Your task to perform on an android device: Open the phone app and click the voicemail tab. Image 0: 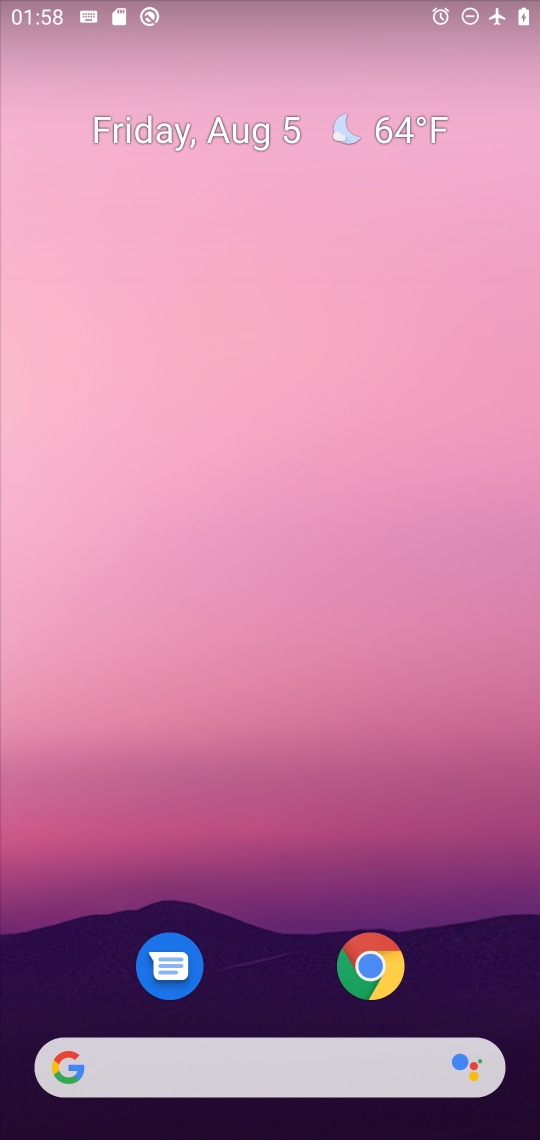
Step 0: drag from (310, 896) to (333, 4)
Your task to perform on an android device: Open the phone app and click the voicemail tab. Image 1: 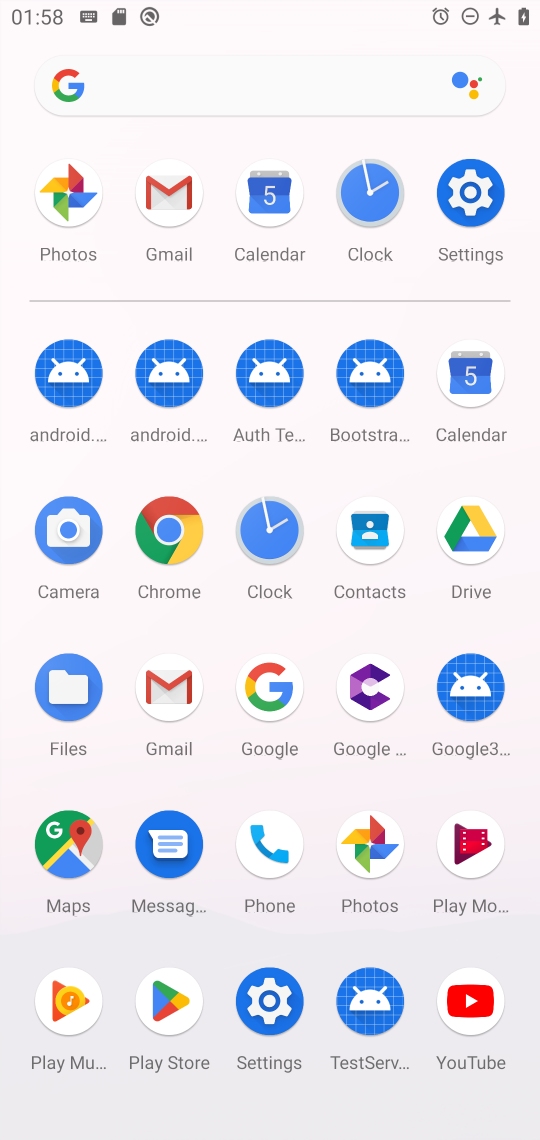
Step 1: click (273, 833)
Your task to perform on an android device: Open the phone app and click the voicemail tab. Image 2: 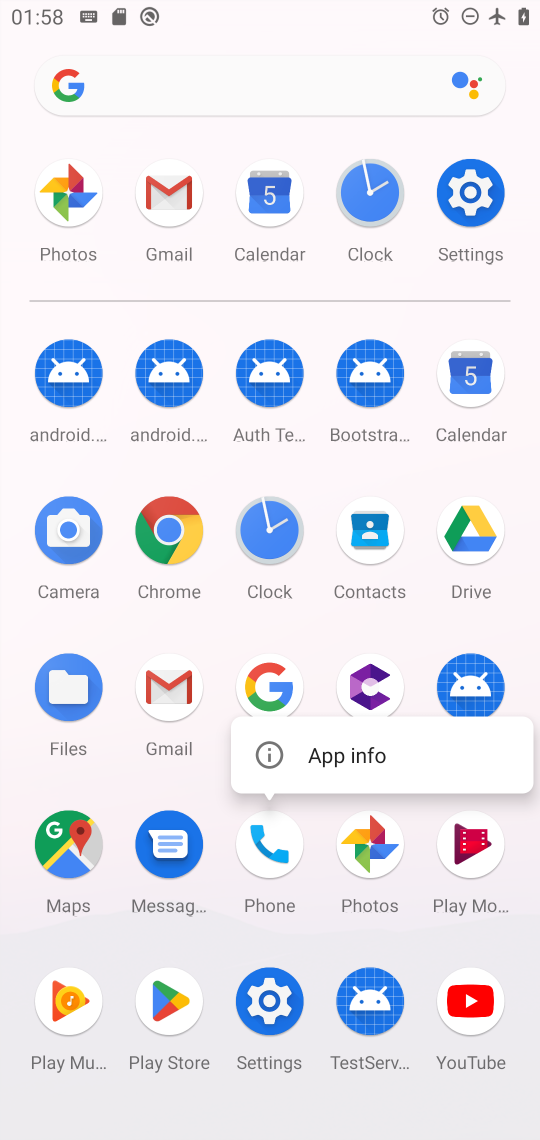
Step 2: click (269, 838)
Your task to perform on an android device: Open the phone app and click the voicemail tab. Image 3: 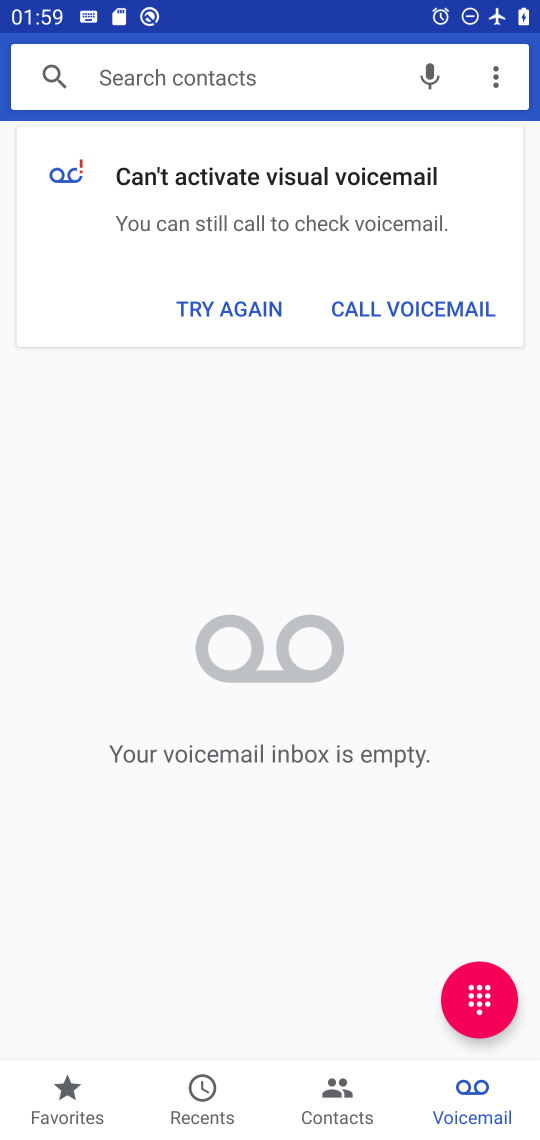
Step 3: click (468, 1098)
Your task to perform on an android device: Open the phone app and click the voicemail tab. Image 4: 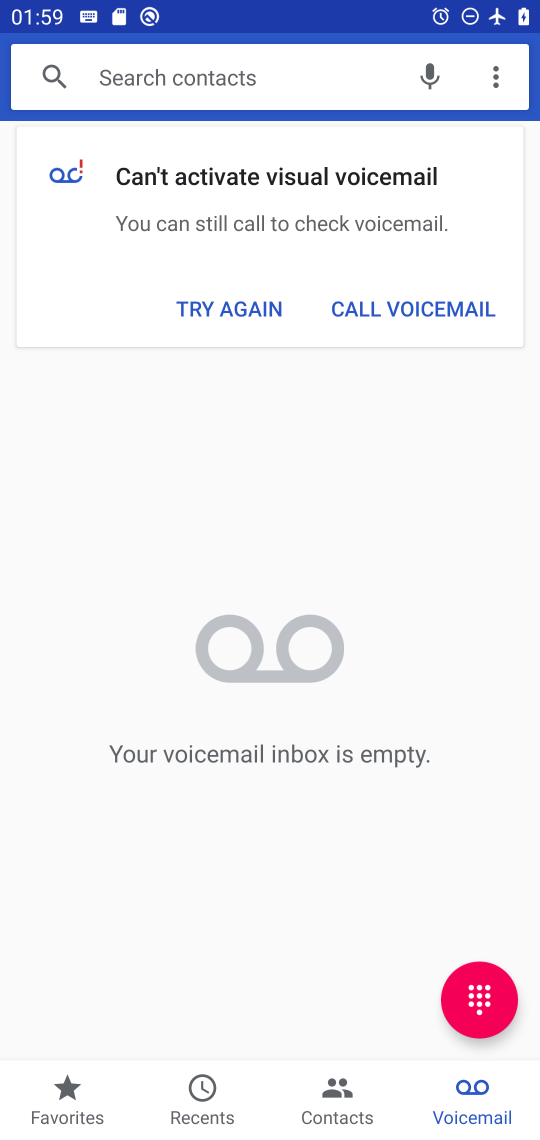
Step 4: task complete